Your task to perform on an android device: delete browsing data in the chrome app Image 0: 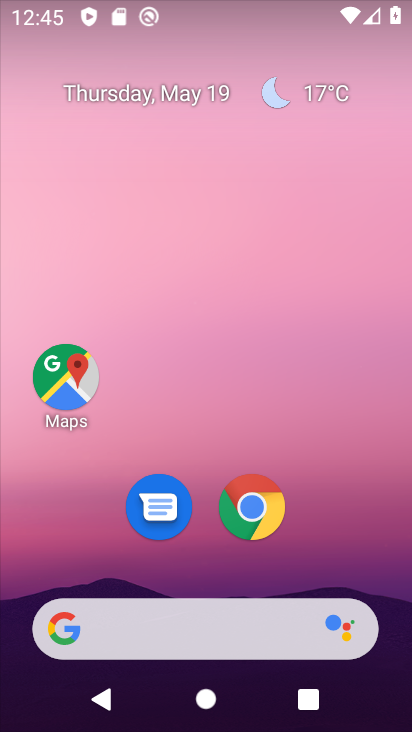
Step 0: drag from (300, 558) to (328, 180)
Your task to perform on an android device: delete browsing data in the chrome app Image 1: 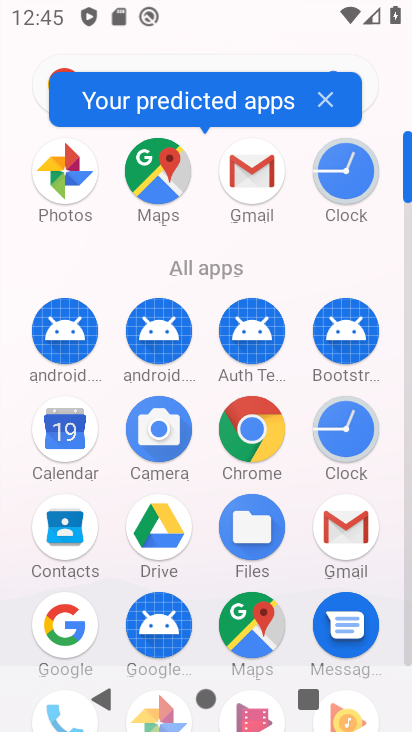
Step 1: click (253, 411)
Your task to perform on an android device: delete browsing data in the chrome app Image 2: 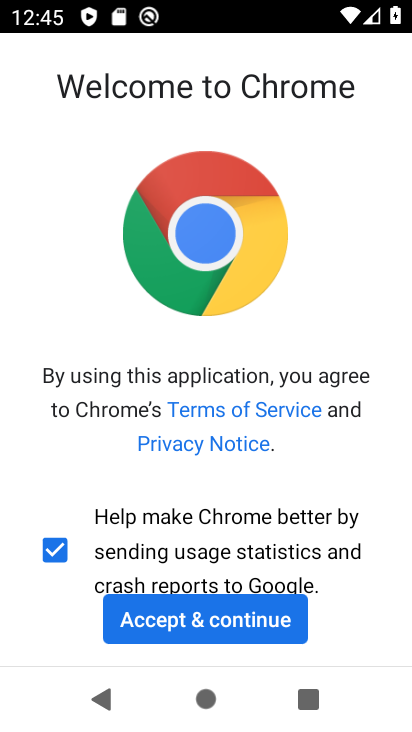
Step 2: click (243, 612)
Your task to perform on an android device: delete browsing data in the chrome app Image 3: 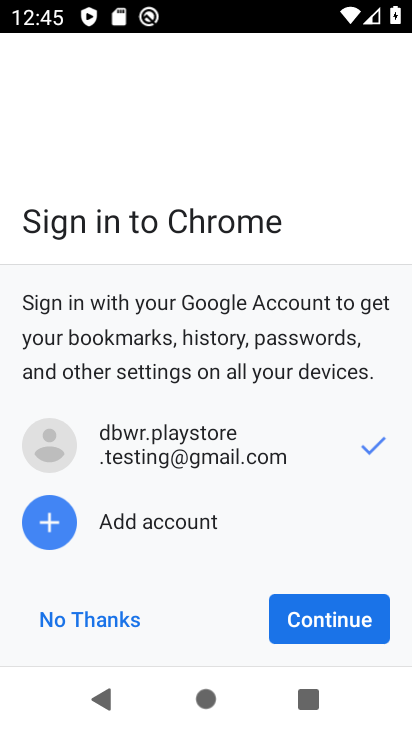
Step 3: click (336, 619)
Your task to perform on an android device: delete browsing data in the chrome app Image 4: 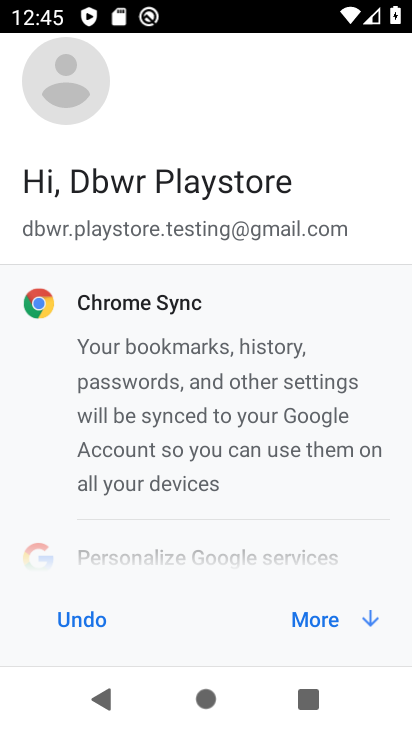
Step 4: click (327, 613)
Your task to perform on an android device: delete browsing data in the chrome app Image 5: 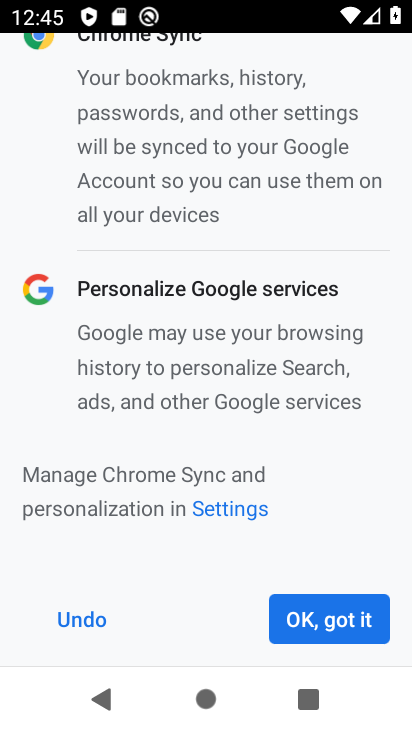
Step 5: click (337, 611)
Your task to perform on an android device: delete browsing data in the chrome app Image 6: 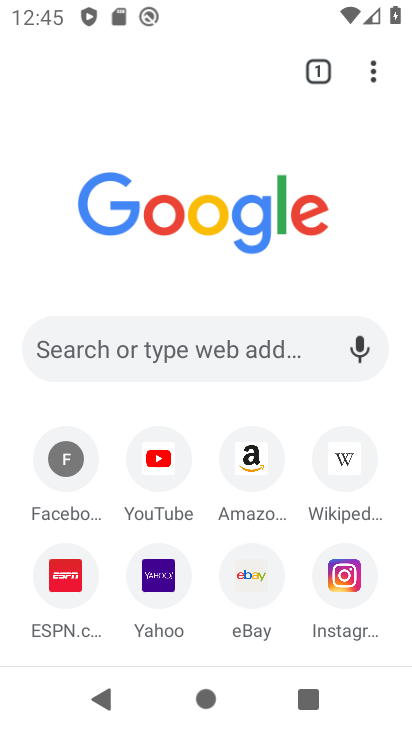
Step 6: click (378, 55)
Your task to perform on an android device: delete browsing data in the chrome app Image 7: 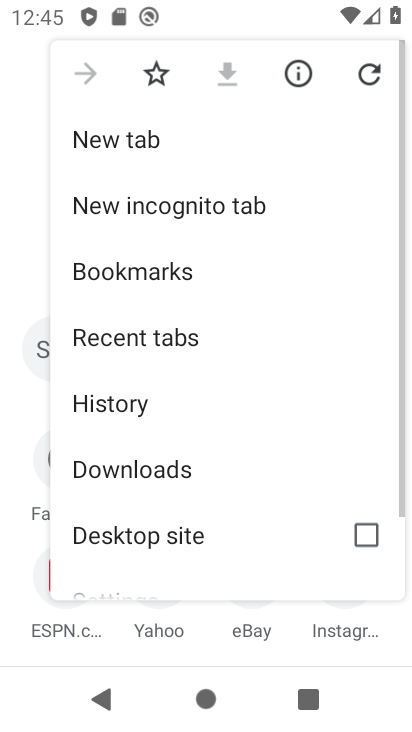
Step 7: click (149, 399)
Your task to perform on an android device: delete browsing data in the chrome app Image 8: 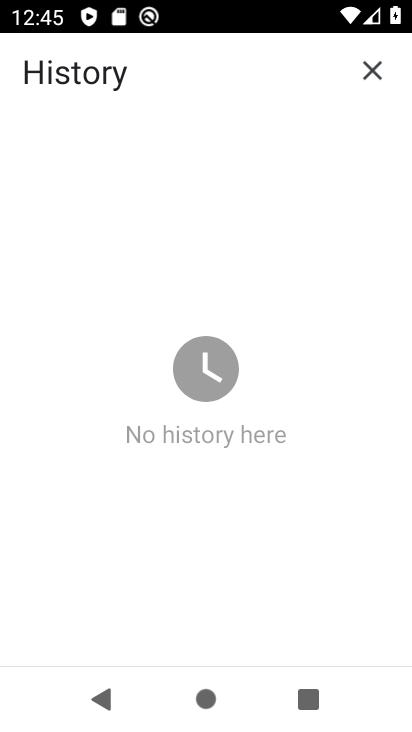
Step 8: task complete